Your task to perform on an android device: set an alarm Image 0: 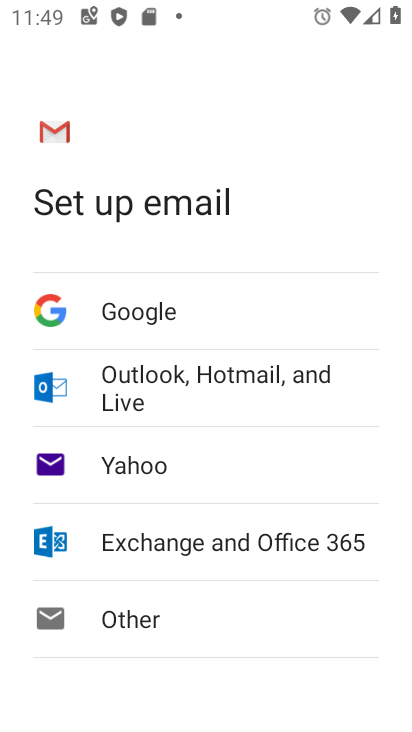
Step 0: press home button
Your task to perform on an android device: set an alarm Image 1: 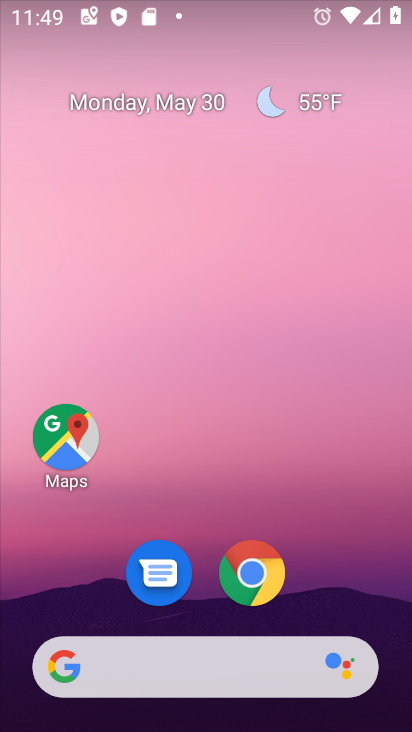
Step 1: drag from (160, 724) to (220, 103)
Your task to perform on an android device: set an alarm Image 2: 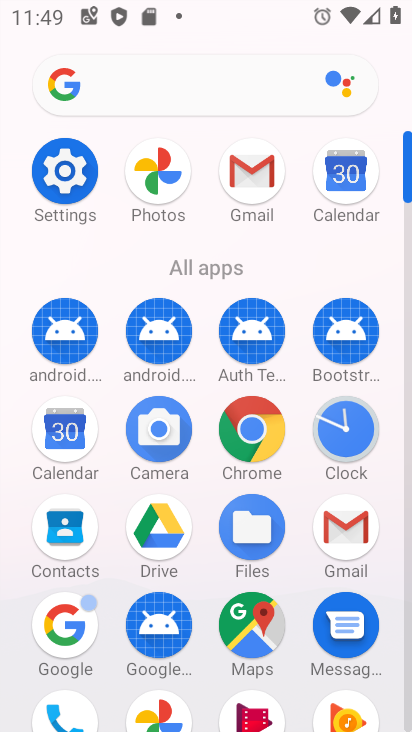
Step 2: click (345, 444)
Your task to perform on an android device: set an alarm Image 3: 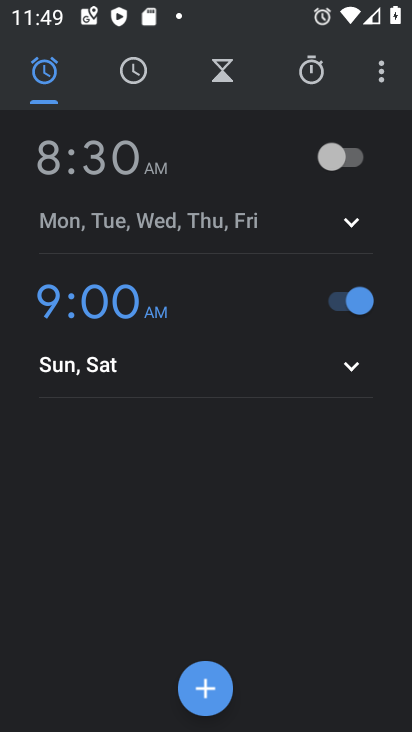
Step 3: task complete